Your task to perform on an android device: When is my next appointment? Image 0: 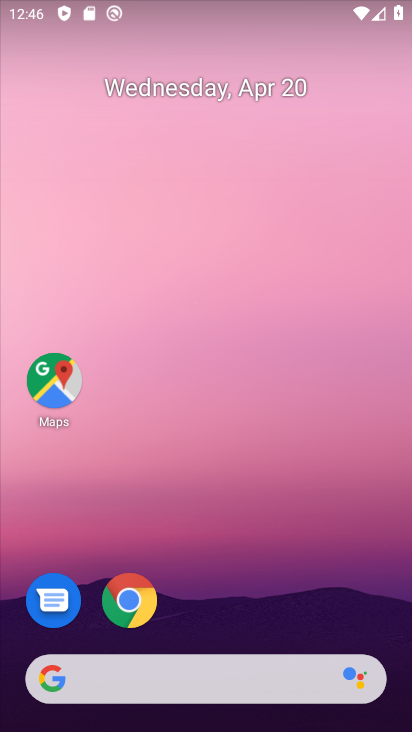
Step 0: drag from (319, 419) to (324, 177)
Your task to perform on an android device: When is my next appointment? Image 1: 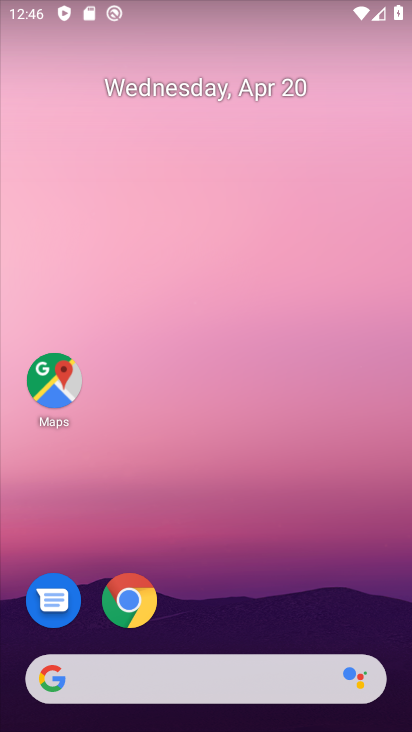
Step 1: drag from (199, 505) to (225, 141)
Your task to perform on an android device: When is my next appointment? Image 2: 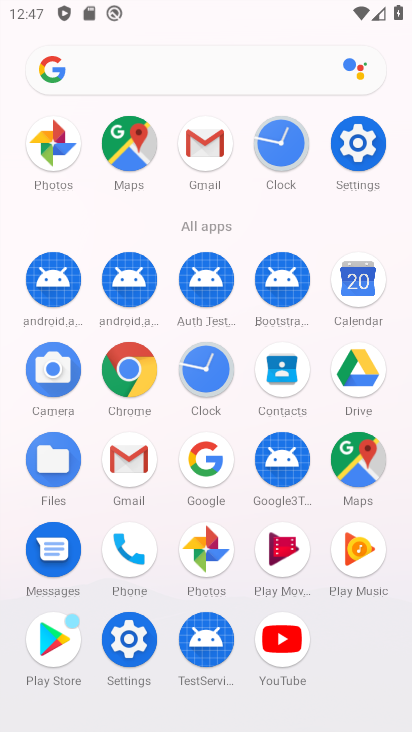
Step 2: click (354, 274)
Your task to perform on an android device: When is my next appointment? Image 3: 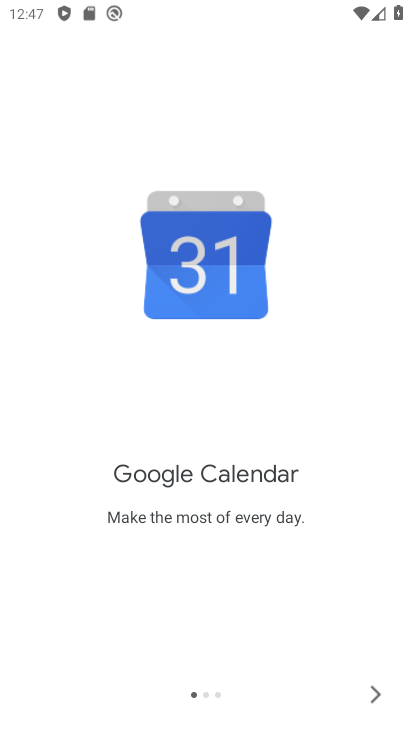
Step 3: click (371, 702)
Your task to perform on an android device: When is my next appointment? Image 4: 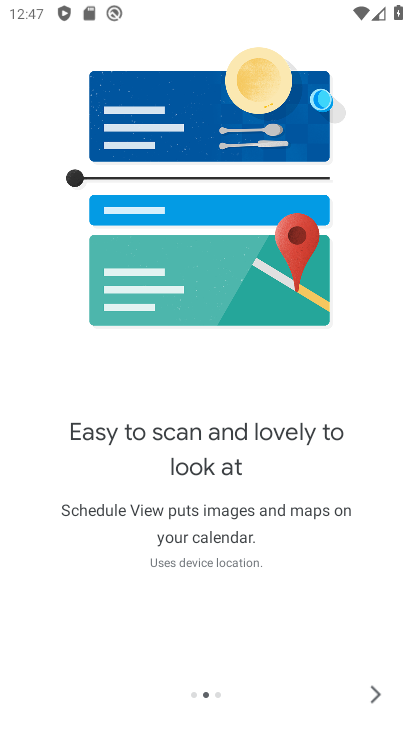
Step 4: click (381, 702)
Your task to perform on an android device: When is my next appointment? Image 5: 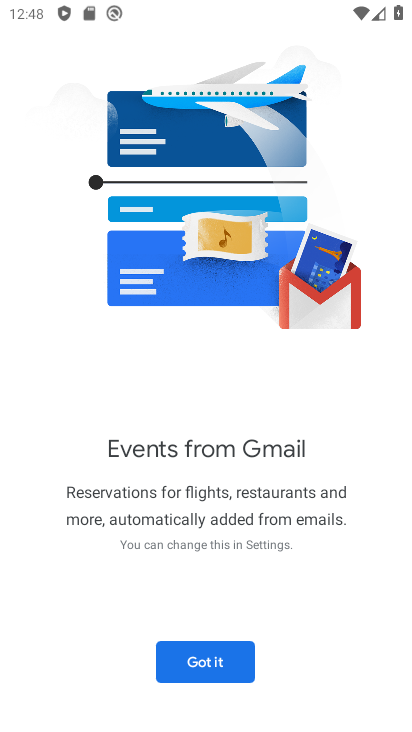
Step 5: click (231, 647)
Your task to perform on an android device: When is my next appointment? Image 6: 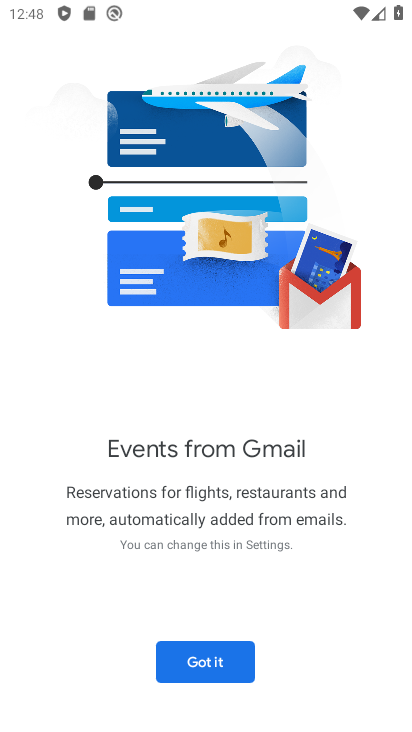
Step 6: click (225, 639)
Your task to perform on an android device: When is my next appointment? Image 7: 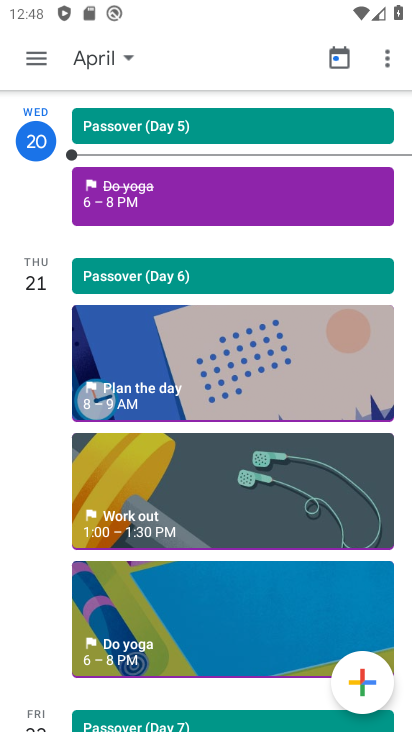
Step 7: click (28, 56)
Your task to perform on an android device: When is my next appointment? Image 8: 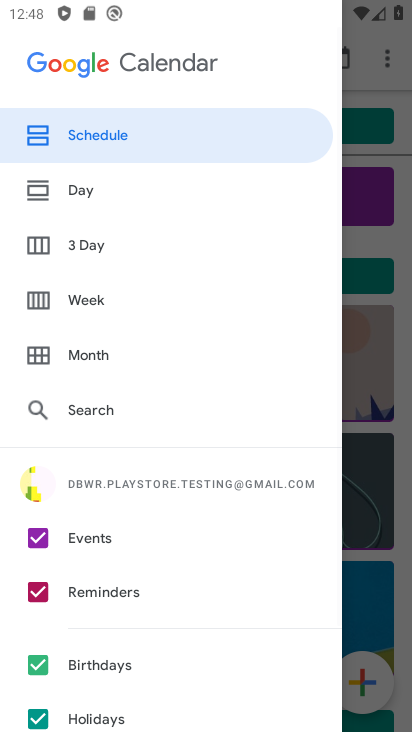
Step 8: click (127, 346)
Your task to perform on an android device: When is my next appointment? Image 9: 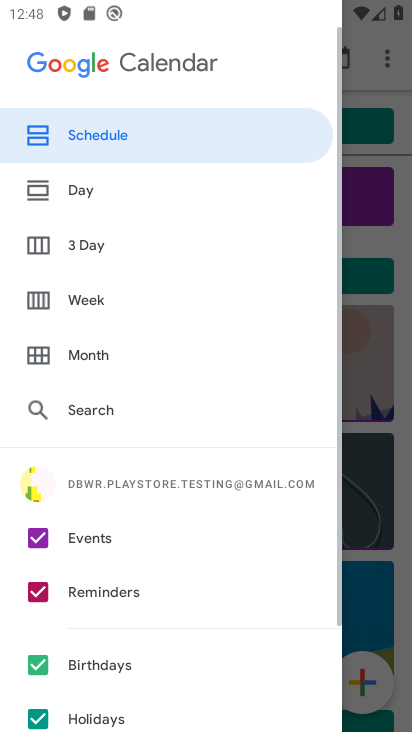
Step 9: click (115, 356)
Your task to perform on an android device: When is my next appointment? Image 10: 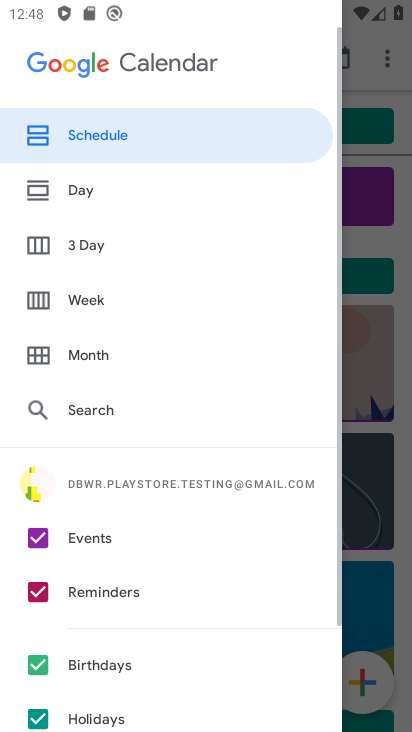
Step 10: click (118, 359)
Your task to perform on an android device: When is my next appointment? Image 11: 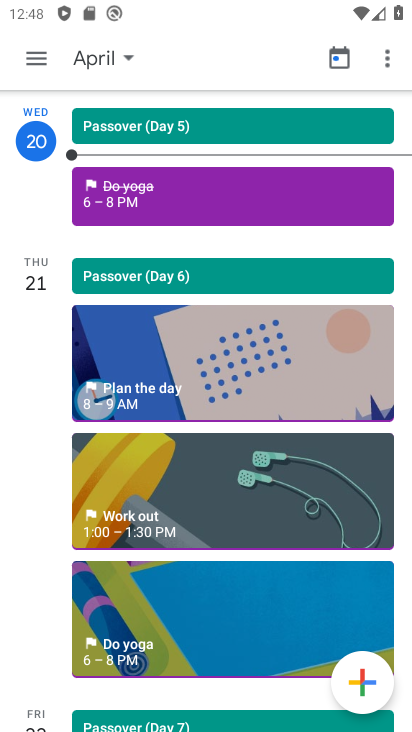
Step 11: click (118, 357)
Your task to perform on an android device: When is my next appointment? Image 12: 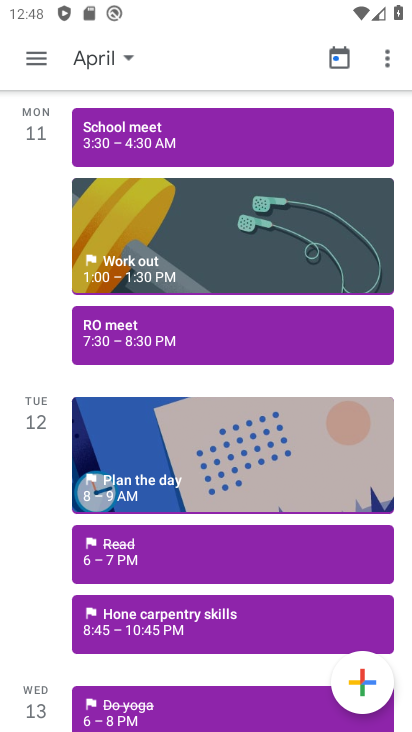
Step 12: press back button
Your task to perform on an android device: When is my next appointment? Image 13: 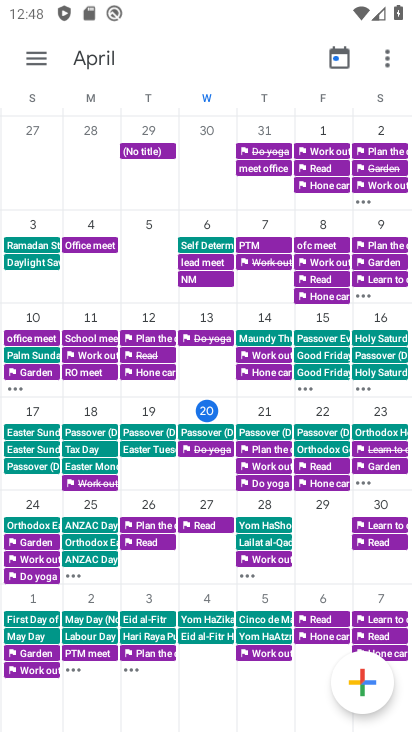
Step 13: click (256, 425)
Your task to perform on an android device: When is my next appointment? Image 14: 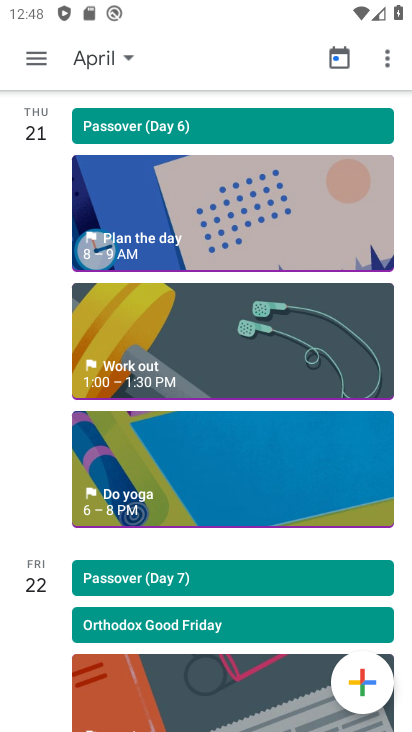
Step 14: task complete